Your task to perform on an android device: change the clock display to show seconds Image 0: 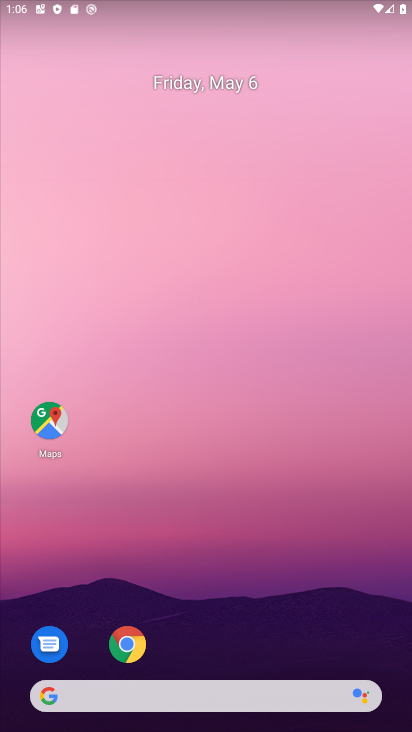
Step 0: drag from (211, 729) to (141, 152)
Your task to perform on an android device: change the clock display to show seconds Image 1: 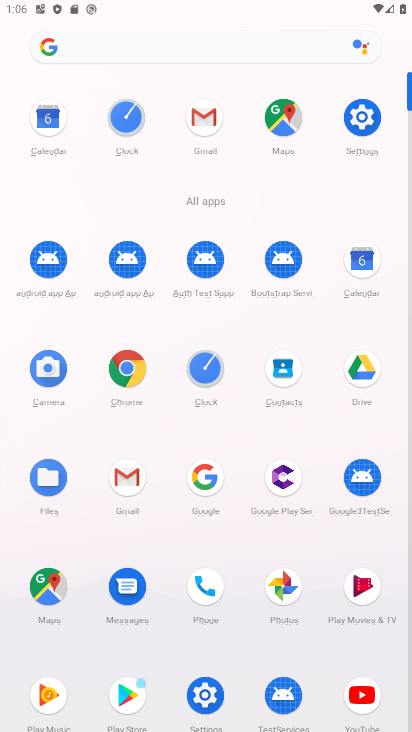
Step 1: click (197, 372)
Your task to perform on an android device: change the clock display to show seconds Image 2: 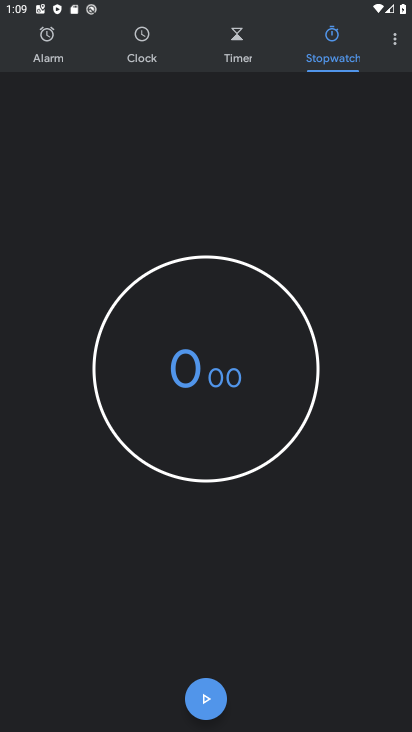
Step 2: click (400, 41)
Your task to perform on an android device: change the clock display to show seconds Image 3: 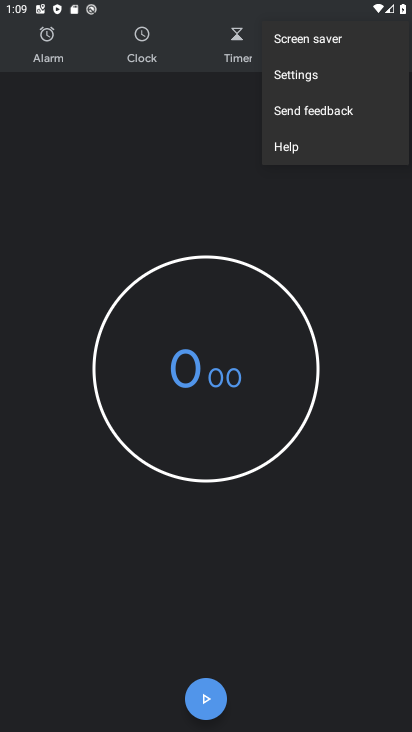
Step 3: click (328, 80)
Your task to perform on an android device: change the clock display to show seconds Image 4: 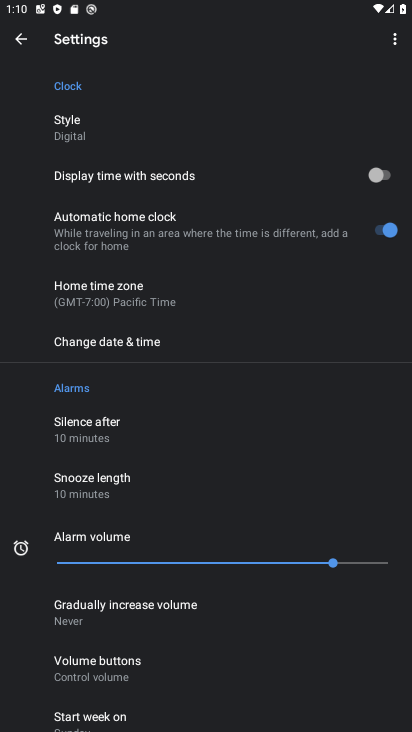
Step 4: click (378, 183)
Your task to perform on an android device: change the clock display to show seconds Image 5: 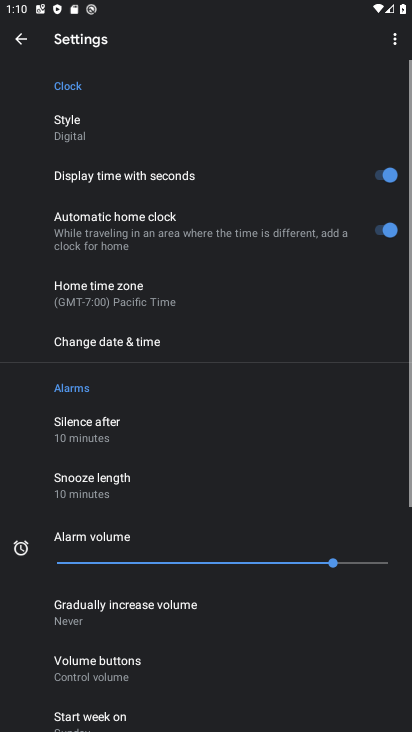
Step 5: task complete